Your task to perform on an android device: Open the Play Movies app and select the watchlist tab. Image 0: 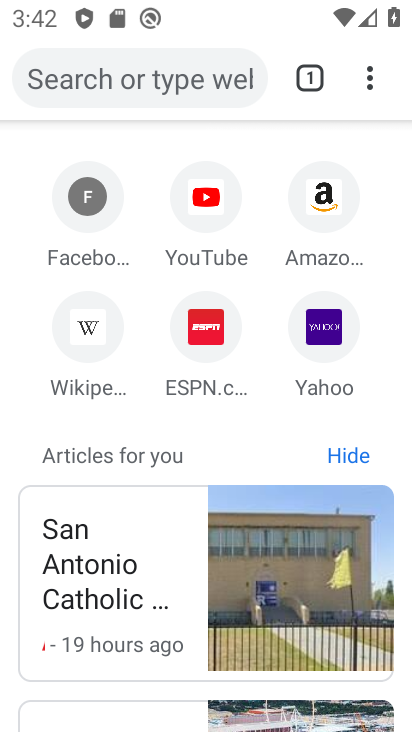
Step 0: press back button
Your task to perform on an android device: Open the Play Movies app and select the watchlist tab. Image 1: 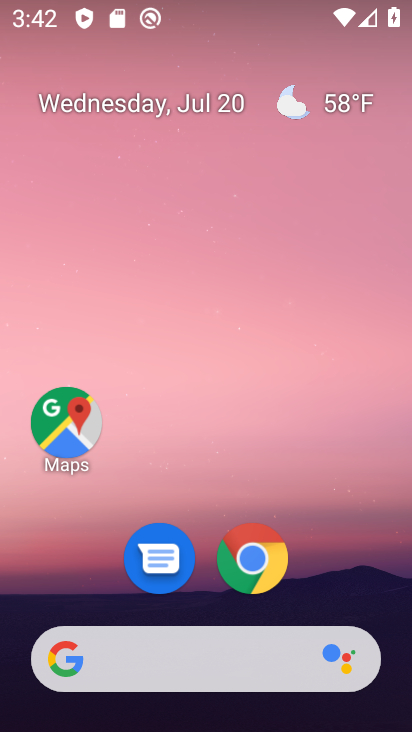
Step 1: drag from (36, 617) to (143, 136)
Your task to perform on an android device: Open the Play Movies app and select the watchlist tab. Image 2: 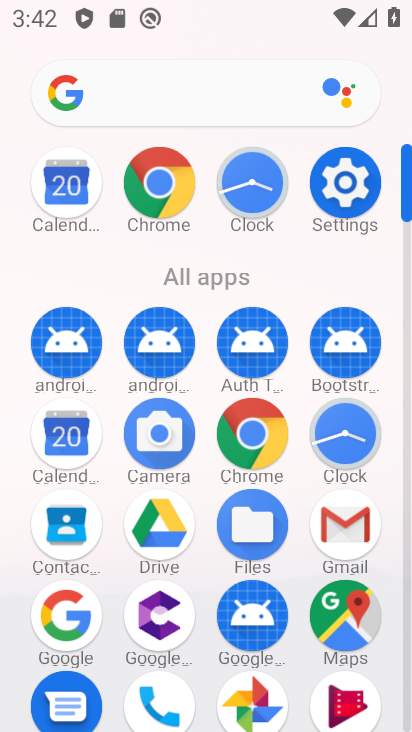
Step 2: click (355, 702)
Your task to perform on an android device: Open the Play Movies app and select the watchlist tab. Image 3: 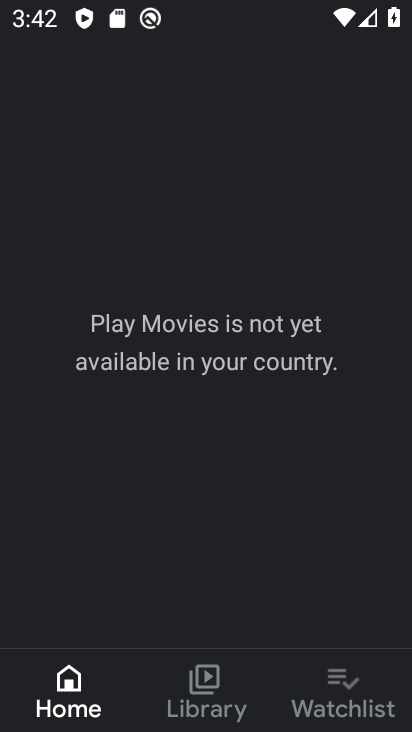
Step 3: click (348, 696)
Your task to perform on an android device: Open the Play Movies app and select the watchlist tab. Image 4: 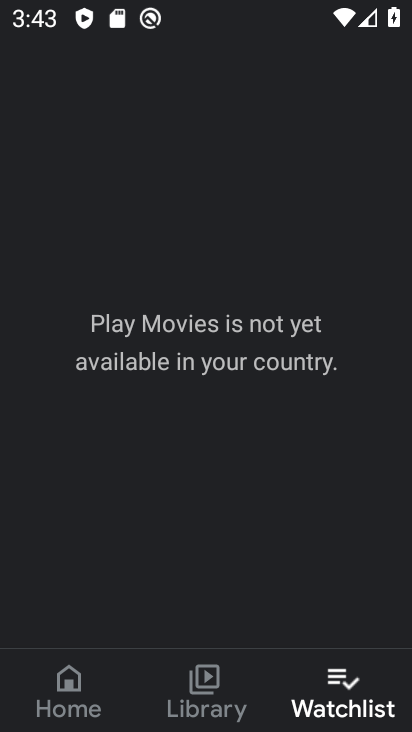
Step 4: task complete